Your task to perform on an android device: Open Wikipedia Image 0: 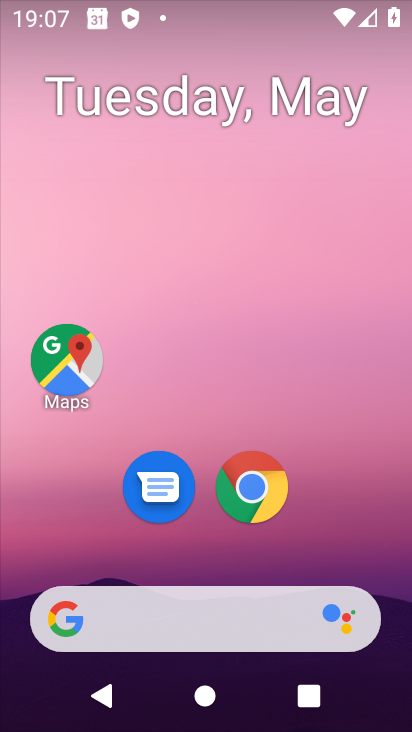
Step 0: click (253, 484)
Your task to perform on an android device: Open Wikipedia Image 1: 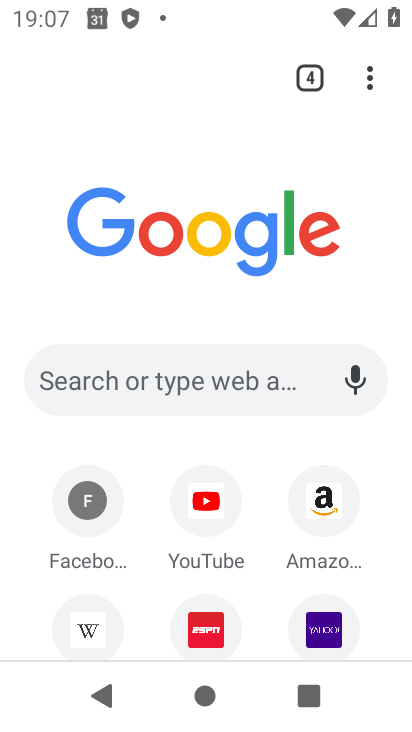
Step 1: click (88, 630)
Your task to perform on an android device: Open Wikipedia Image 2: 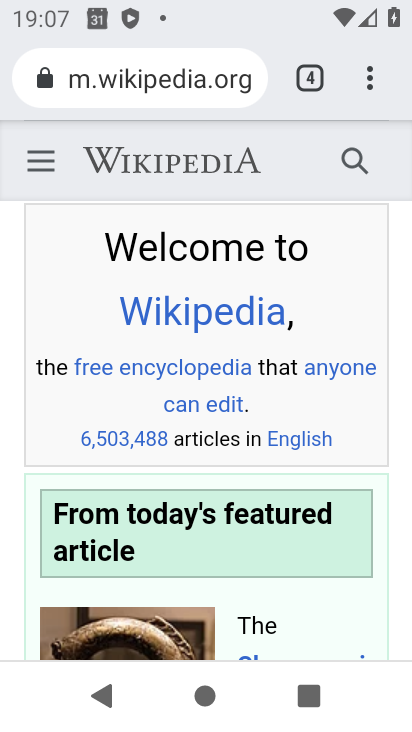
Step 2: task complete